Your task to perform on an android device: Find coffee shops on Maps Image 0: 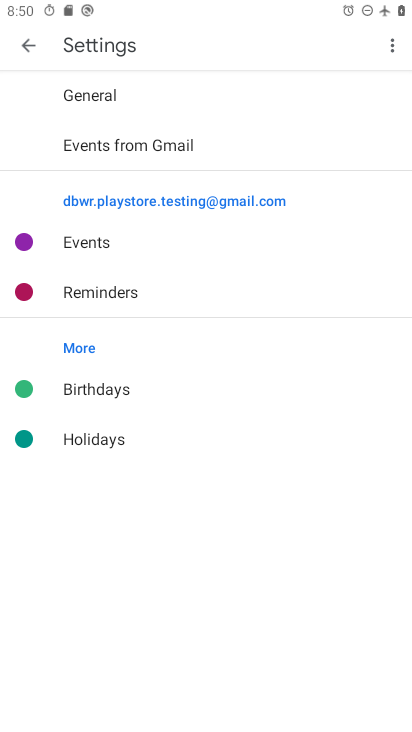
Step 0: press back button
Your task to perform on an android device: Find coffee shops on Maps Image 1: 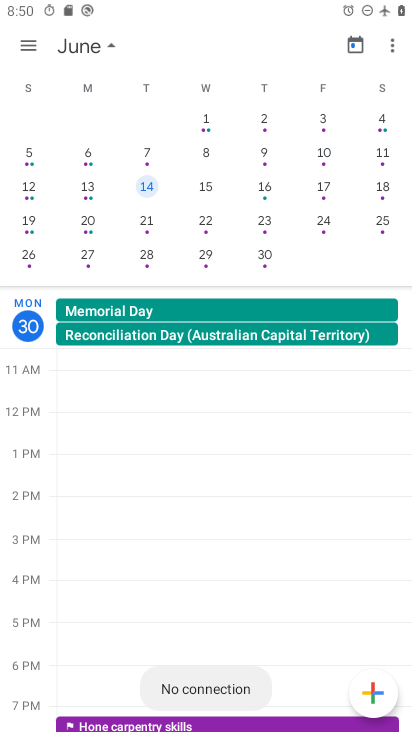
Step 1: press home button
Your task to perform on an android device: Find coffee shops on Maps Image 2: 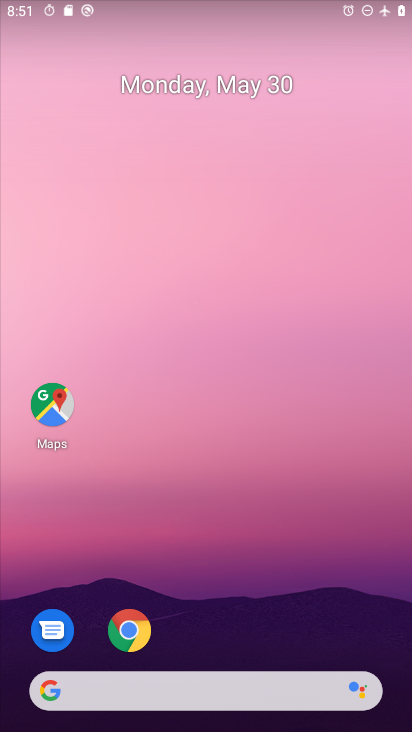
Step 2: drag from (368, 635) to (284, 33)
Your task to perform on an android device: Find coffee shops on Maps Image 3: 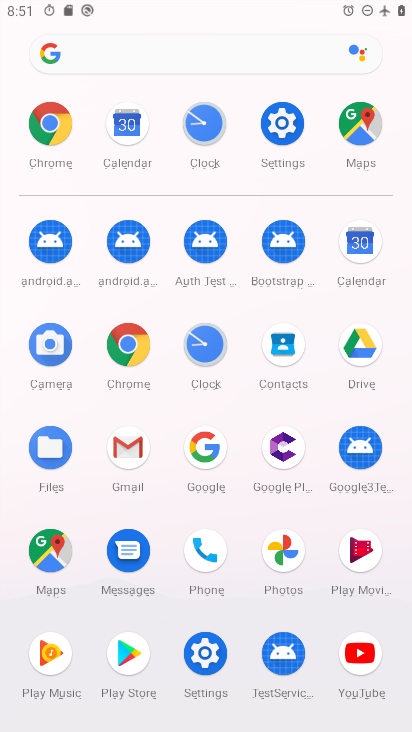
Step 3: click (362, 129)
Your task to perform on an android device: Find coffee shops on Maps Image 4: 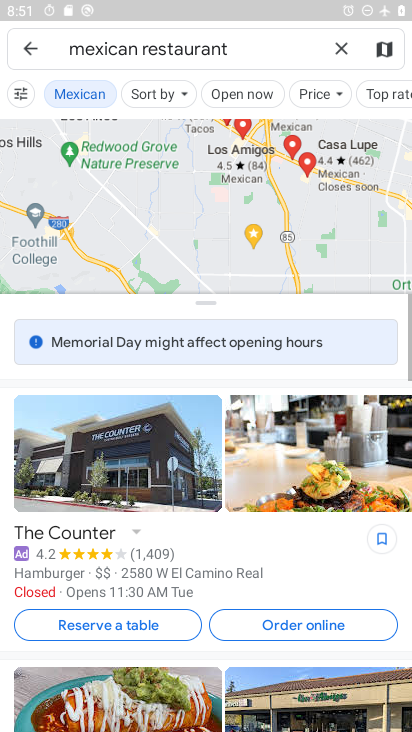
Step 4: click (344, 51)
Your task to perform on an android device: Find coffee shops on Maps Image 5: 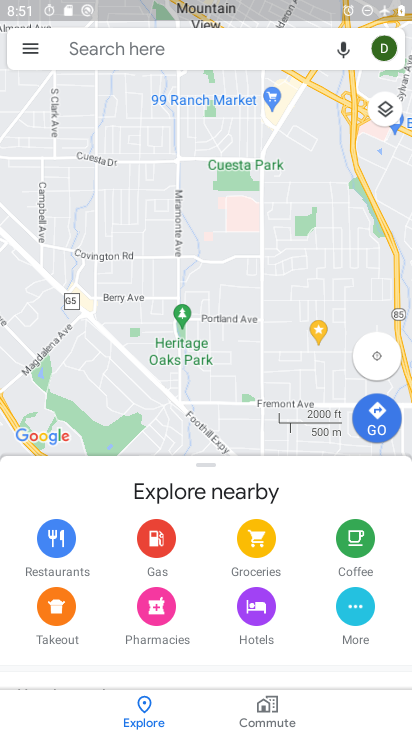
Step 5: click (193, 56)
Your task to perform on an android device: Find coffee shops on Maps Image 6: 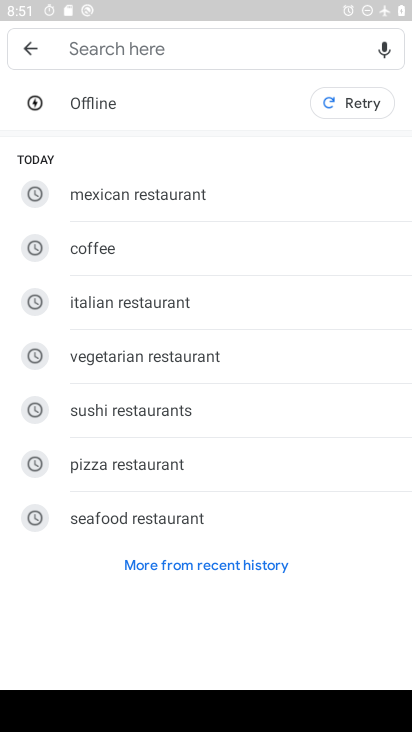
Step 6: click (118, 252)
Your task to perform on an android device: Find coffee shops on Maps Image 7: 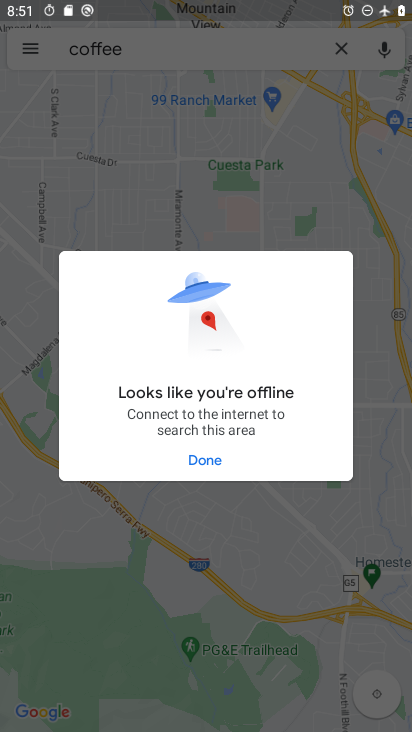
Step 7: task complete